Your task to perform on an android device: turn notification dots off Image 0: 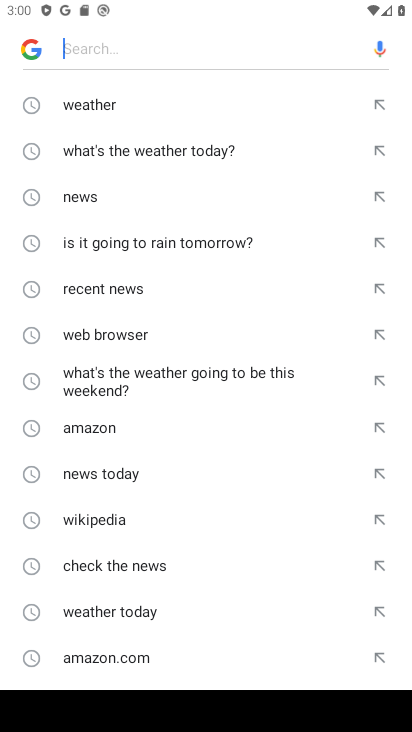
Step 0: press back button
Your task to perform on an android device: turn notification dots off Image 1: 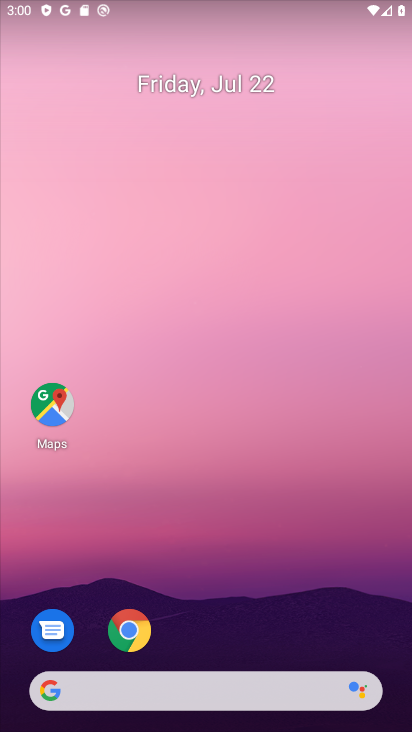
Step 1: drag from (215, 694) to (7, 0)
Your task to perform on an android device: turn notification dots off Image 2: 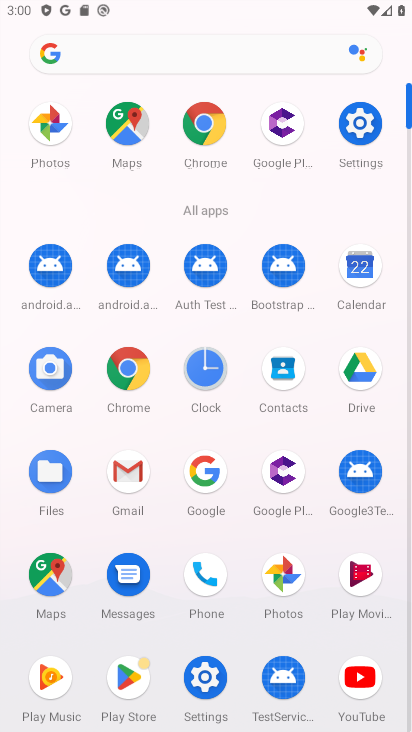
Step 2: click (361, 128)
Your task to perform on an android device: turn notification dots off Image 3: 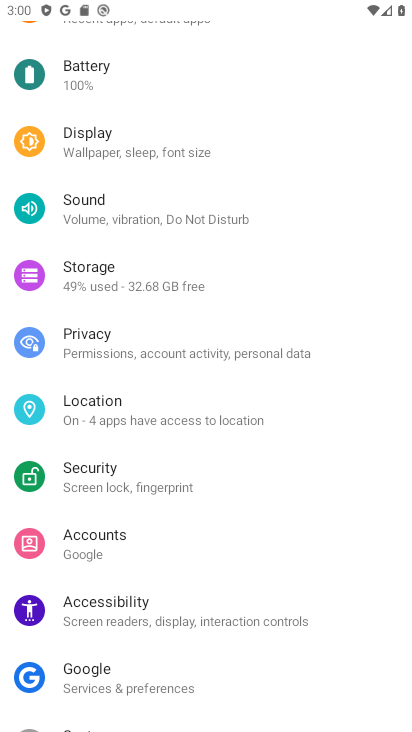
Step 3: drag from (176, 486) to (94, 1)
Your task to perform on an android device: turn notification dots off Image 4: 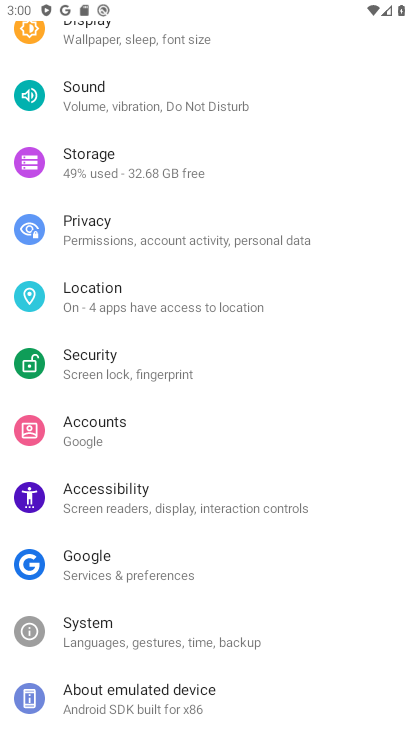
Step 4: drag from (174, 147) to (103, 680)
Your task to perform on an android device: turn notification dots off Image 5: 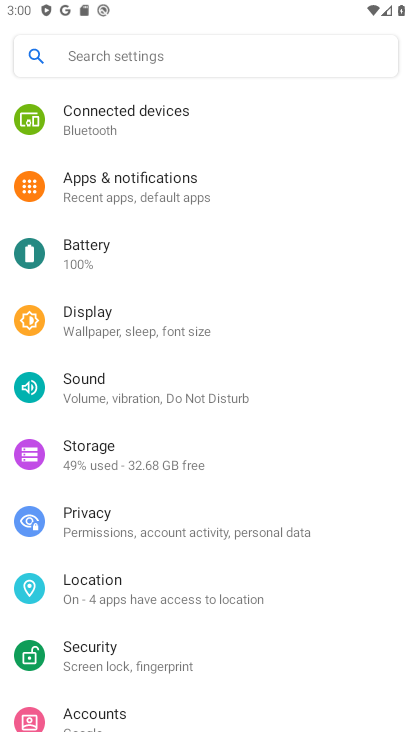
Step 5: click (157, 187)
Your task to perform on an android device: turn notification dots off Image 6: 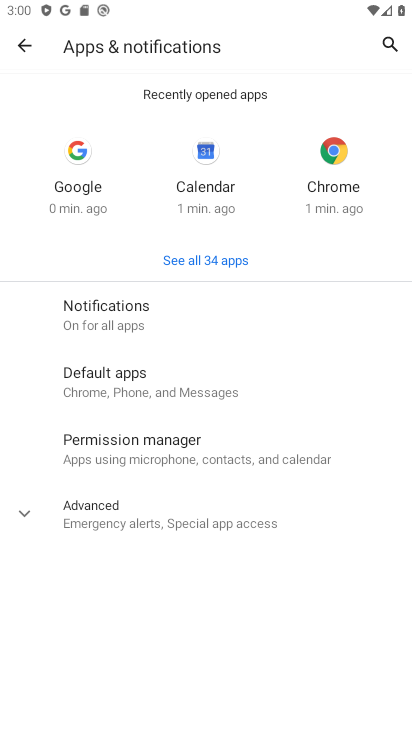
Step 6: click (100, 322)
Your task to perform on an android device: turn notification dots off Image 7: 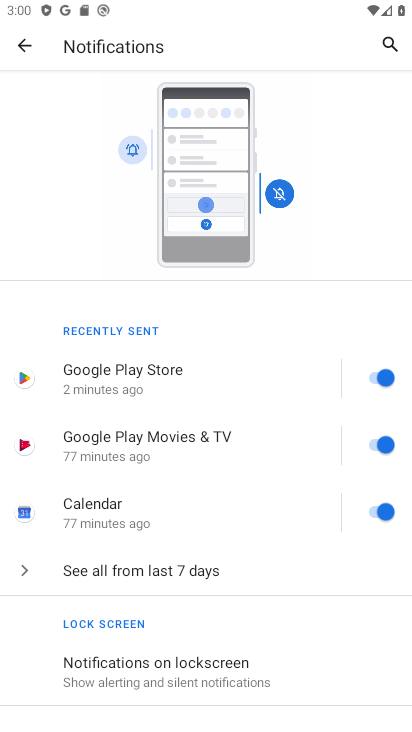
Step 7: drag from (266, 615) to (188, 122)
Your task to perform on an android device: turn notification dots off Image 8: 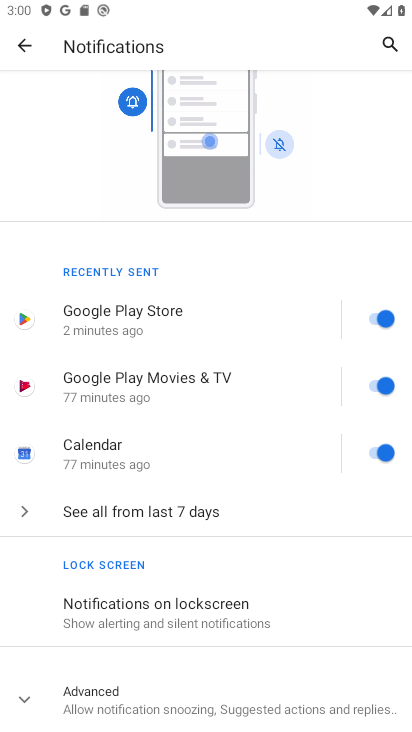
Step 8: click (145, 706)
Your task to perform on an android device: turn notification dots off Image 9: 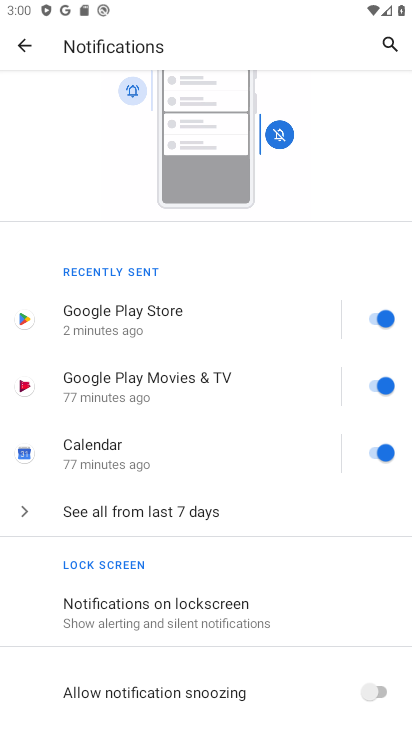
Step 9: drag from (257, 652) to (197, 19)
Your task to perform on an android device: turn notification dots off Image 10: 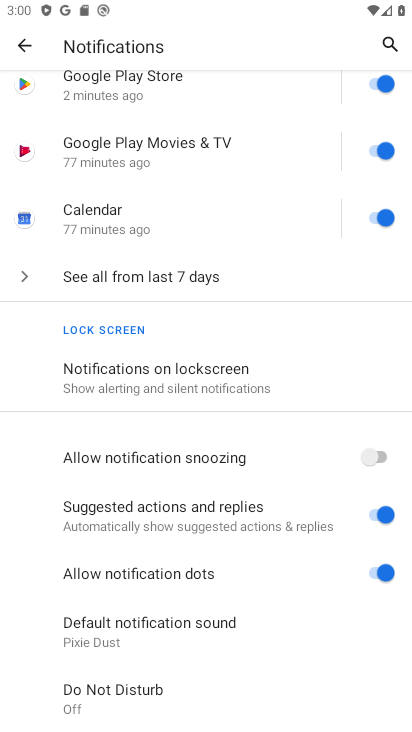
Step 10: click (391, 581)
Your task to perform on an android device: turn notification dots off Image 11: 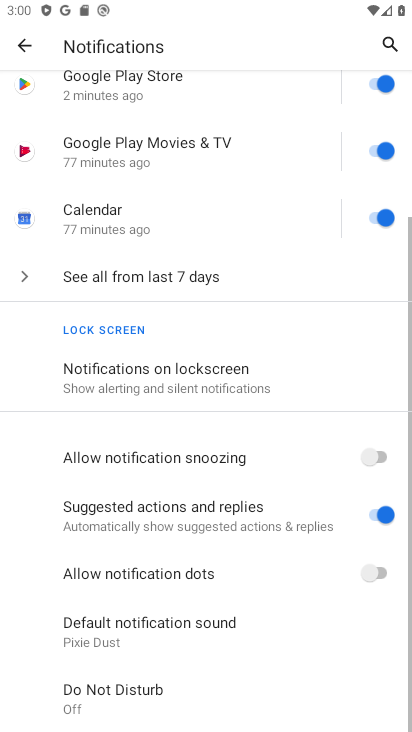
Step 11: task complete